Your task to perform on an android device: Go to Google maps Image 0: 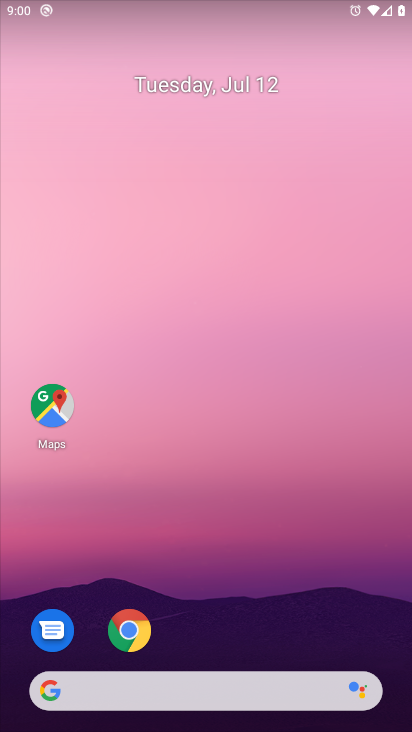
Step 0: press home button
Your task to perform on an android device: Go to Google maps Image 1: 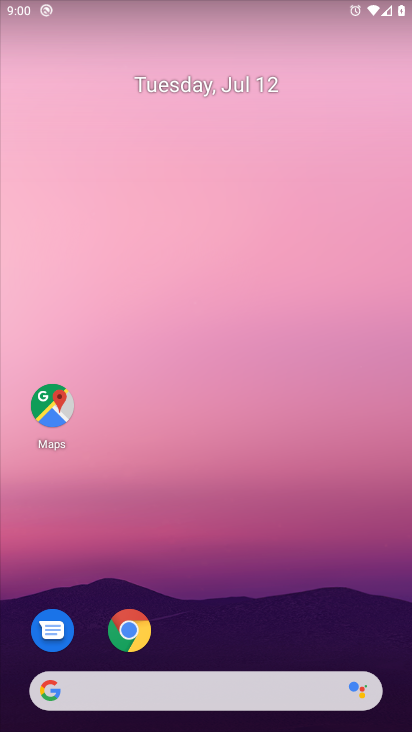
Step 1: drag from (221, 640) to (206, 161)
Your task to perform on an android device: Go to Google maps Image 2: 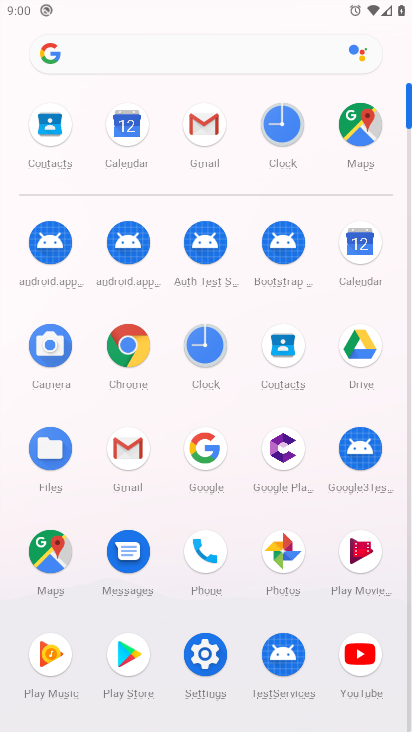
Step 2: click (368, 129)
Your task to perform on an android device: Go to Google maps Image 3: 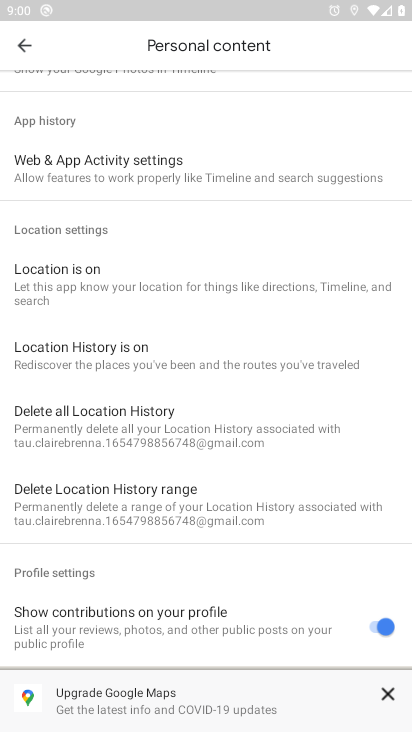
Step 3: task complete